Your task to perform on an android device: Go to Android settings Image 0: 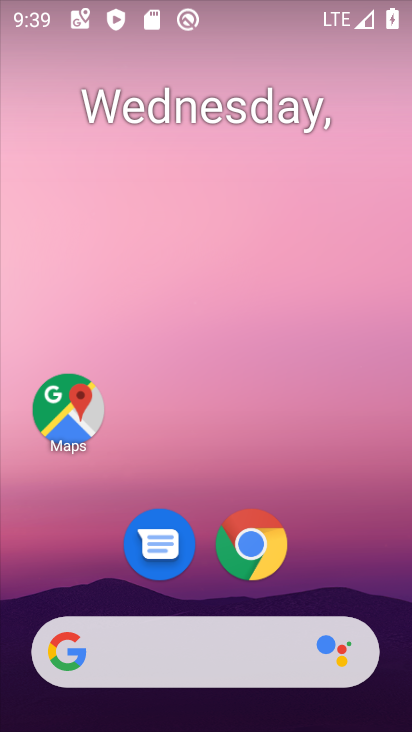
Step 0: drag from (217, 586) to (353, 11)
Your task to perform on an android device: Go to Android settings Image 1: 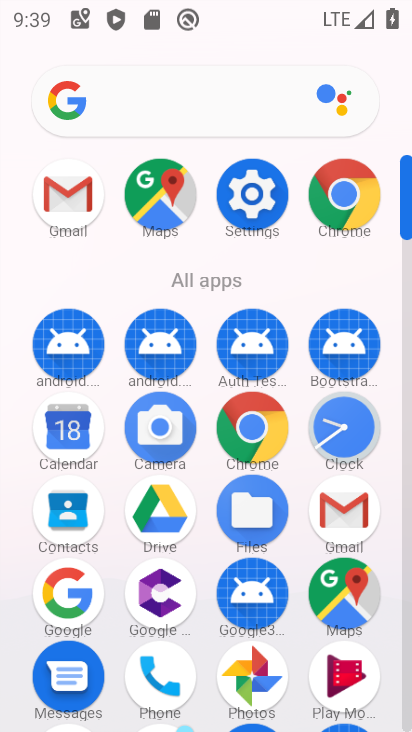
Step 1: click (264, 219)
Your task to perform on an android device: Go to Android settings Image 2: 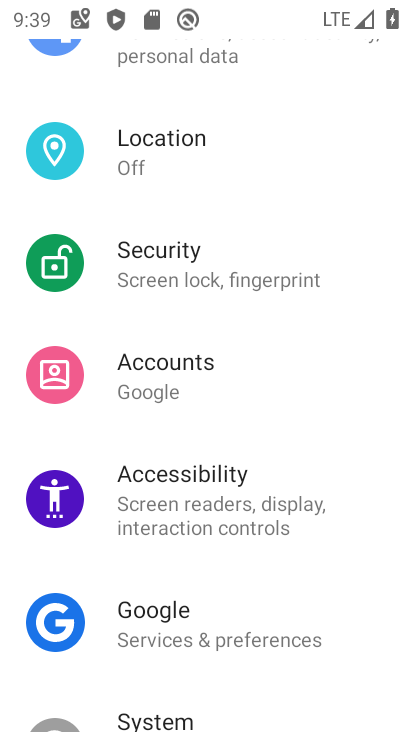
Step 2: task complete